Your task to perform on an android device: change timer sound Image 0: 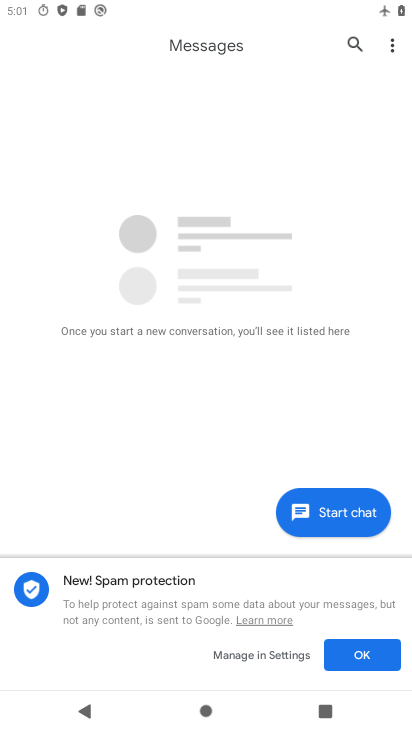
Step 0: press home button
Your task to perform on an android device: change timer sound Image 1: 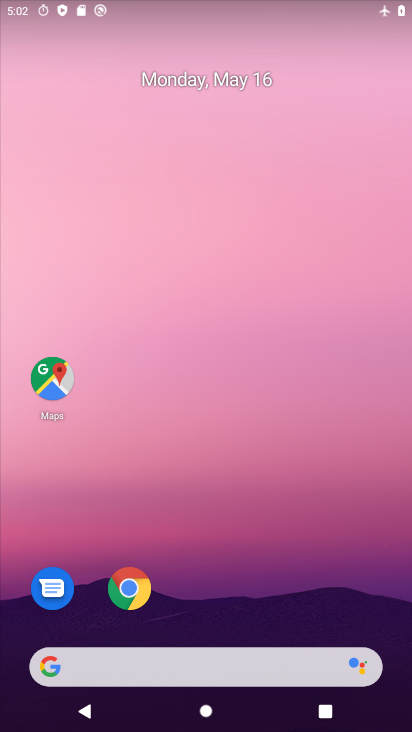
Step 1: drag from (242, 601) to (197, 264)
Your task to perform on an android device: change timer sound Image 2: 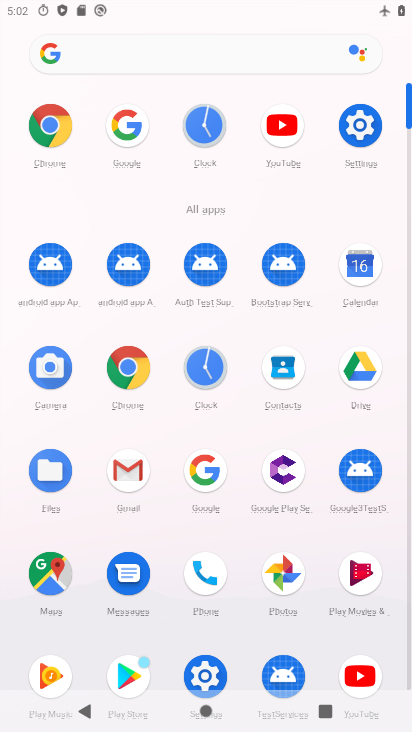
Step 2: click (357, 144)
Your task to perform on an android device: change timer sound Image 3: 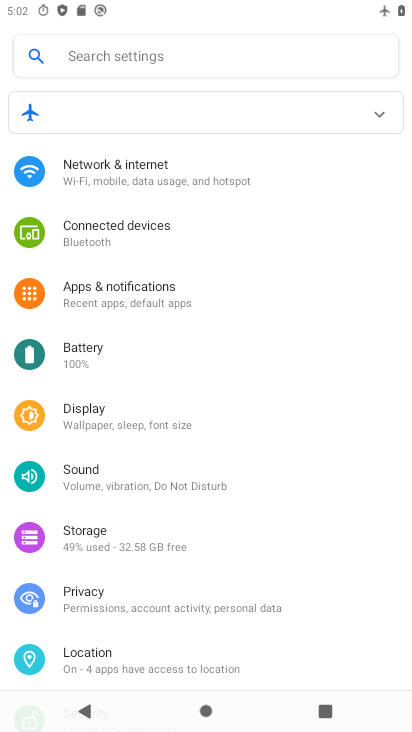
Step 3: press home button
Your task to perform on an android device: change timer sound Image 4: 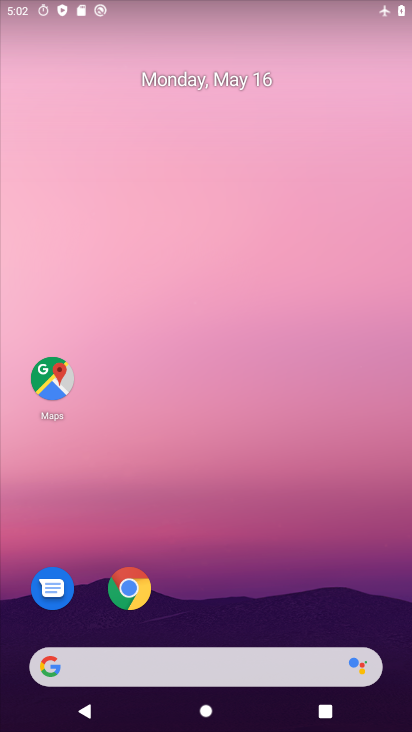
Step 4: drag from (269, 612) to (249, 222)
Your task to perform on an android device: change timer sound Image 5: 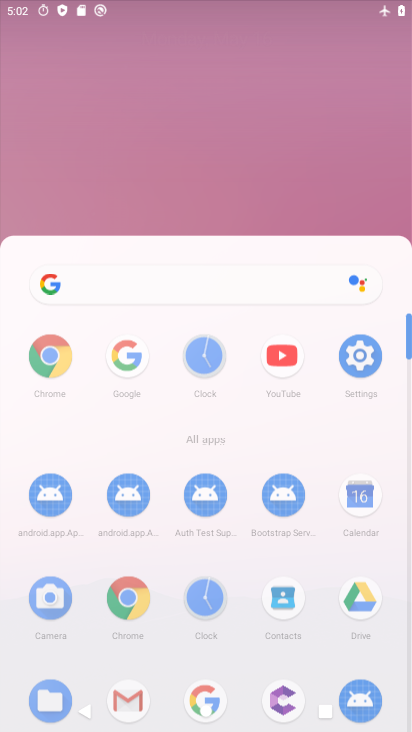
Step 5: drag from (249, 222) to (225, 64)
Your task to perform on an android device: change timer sound Image 6: 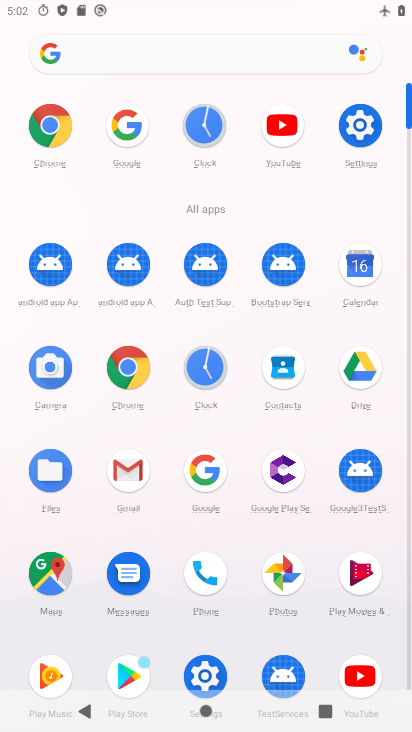
Step 6: click (211, 133)
Your task to perform on an android device: change timer sound Image 7: 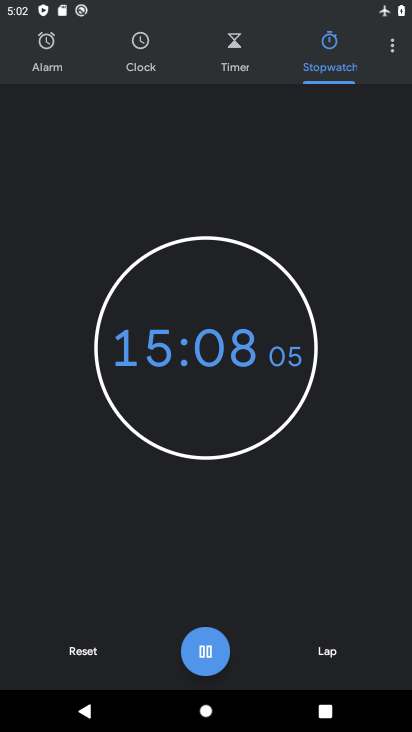
Step 7: click (392, 51)
Your task to perform on an android device: change timer sound Image 8: 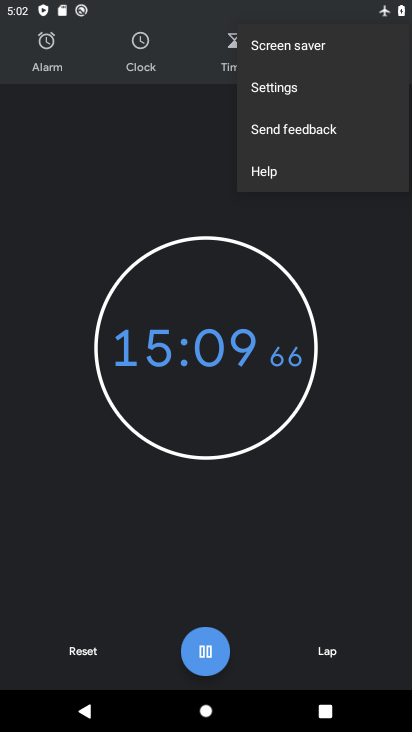
Step 8: click (348, 86)
Your task to perform on an android device: change timer sound Image 9: 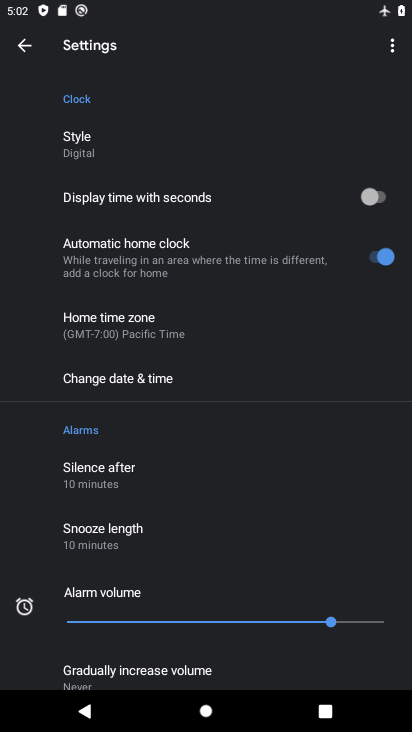
Step 9: drag from (276, 538) to (277, 247)
Your task to perform on an android device: change timer sound Image 10: 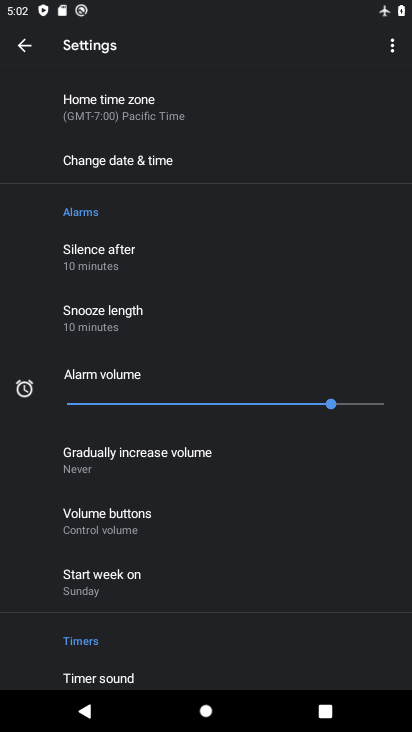
Step 10: drag from (220, 579) to (252, 320)
Your task to perform on an android device: change timer sound Image 11: 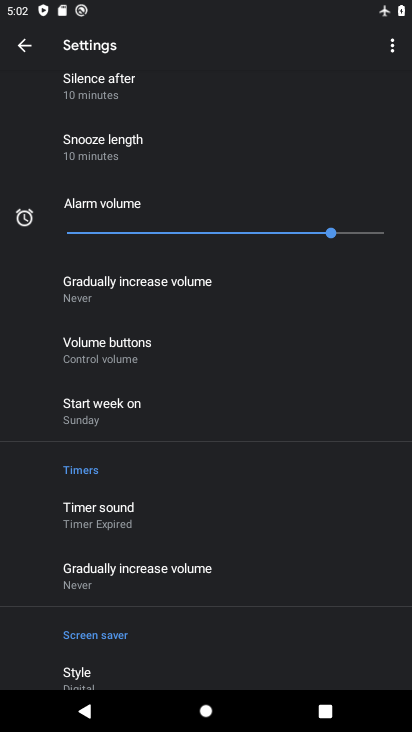
Step 11: click (238, 508)
Your task to perform on an android device: change timer sound Image 12: 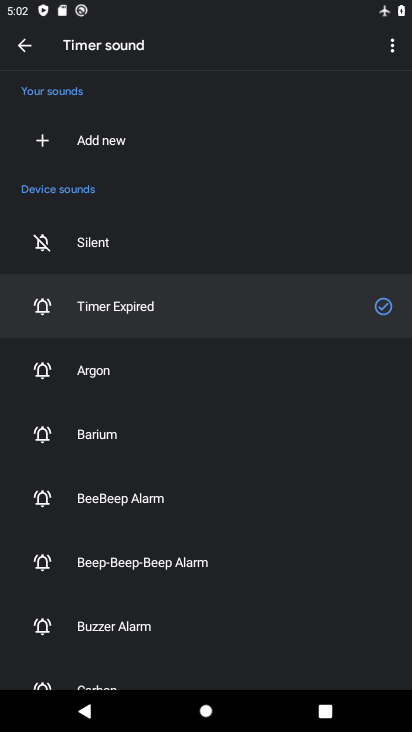
Step 12: click (205, 627)
Your task to perform on an android device: change timer sound Image 13: 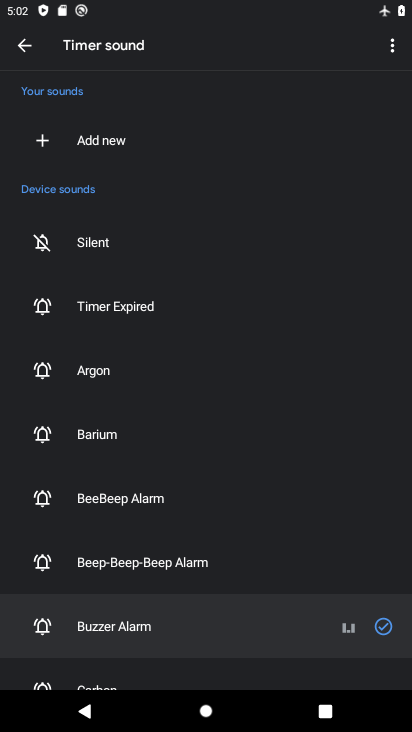
Step 13: task complete